Your task to perform on an android device: turn on improve location accuracy Image 0: 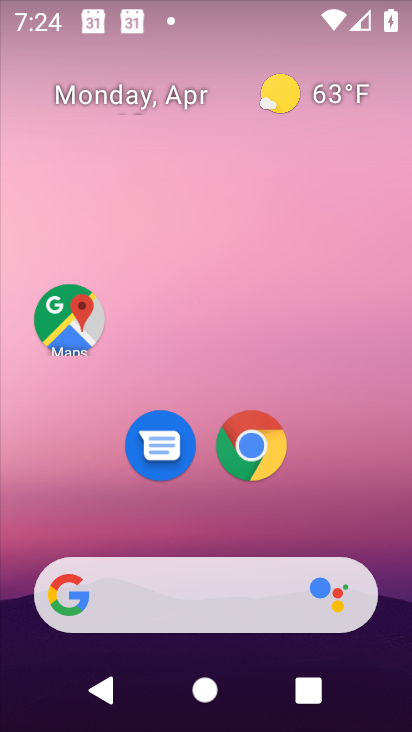
Step 0: click (369, 96)
Your task to perform on an android device: turn on improve location accuracy Image 1: 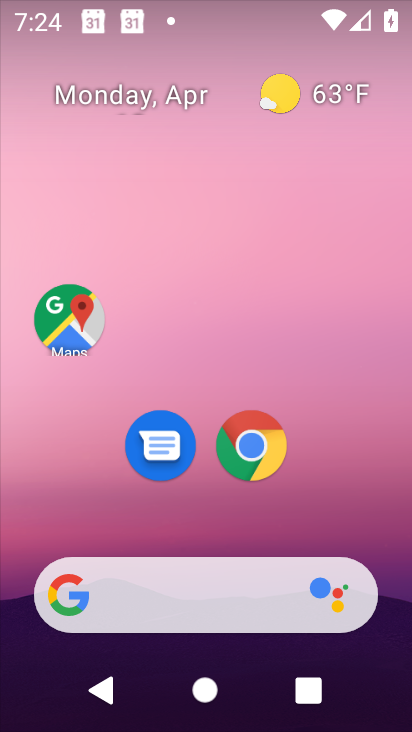
Step 1: drag from (382, 397) to (360, 1)
Your task to perform on an android device: turn on improve location accuracy Image 2: 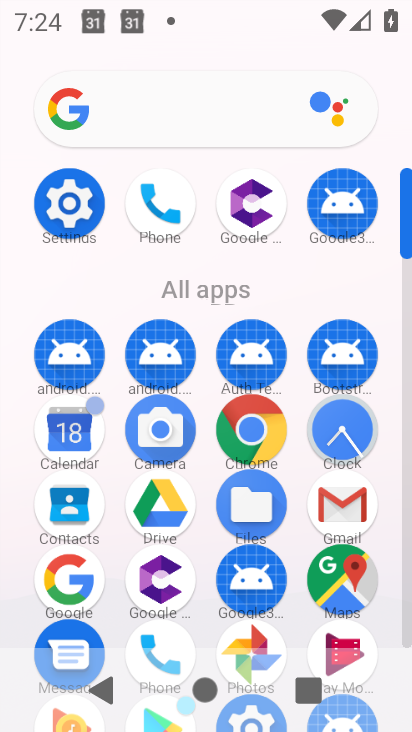
Step 2: click (53, 174)
Your task to perform on an android device: turn on improve location accuracy Image 3: 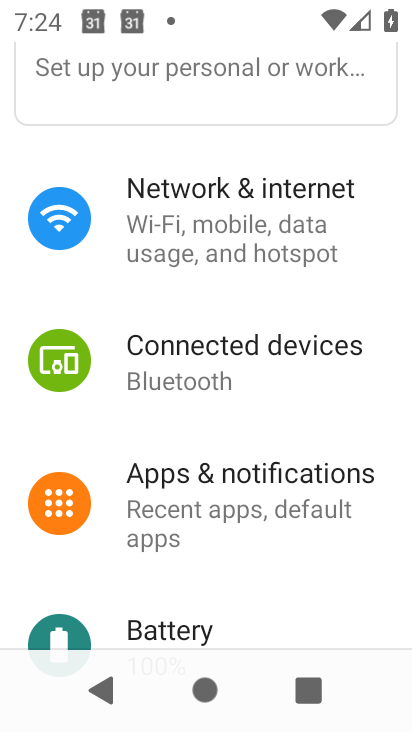
Step 3: drag from (261, 528) to (276, 178)
Your task to perform on an android device: turn on improve location accuracy Image 4: 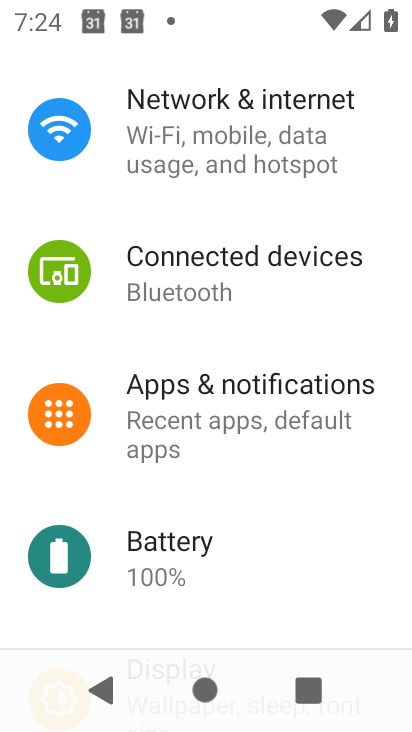
Step 4: drag from (340, 573) to (366, 111)
Your task to perform on an android device: turn on improve location accuracy Image 5: 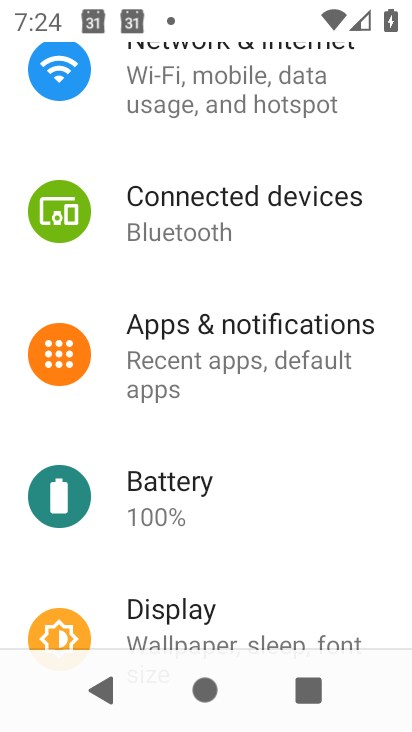
Step 5: drag from (314, 555) to (344, 169)
Your task to perform on an android device: turn on improve location accuracy Image 6: 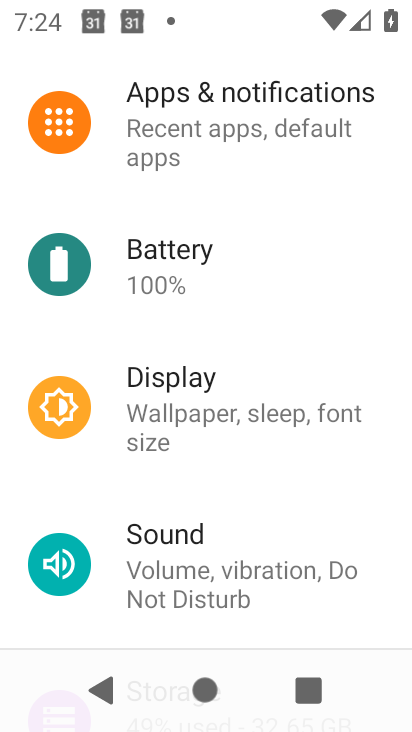
Step 6: drag from (366, 570) to (370, 147)
Your task to perform on an android device: turn on improve location accuracy Image 7: 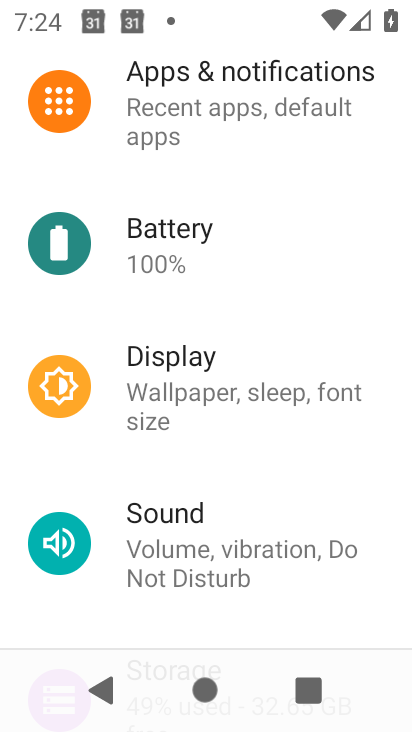
Step 7: drag from (379, 612) to (379, 190)
Your task to perform on an android device: turn on improve location accuracy Image 8: 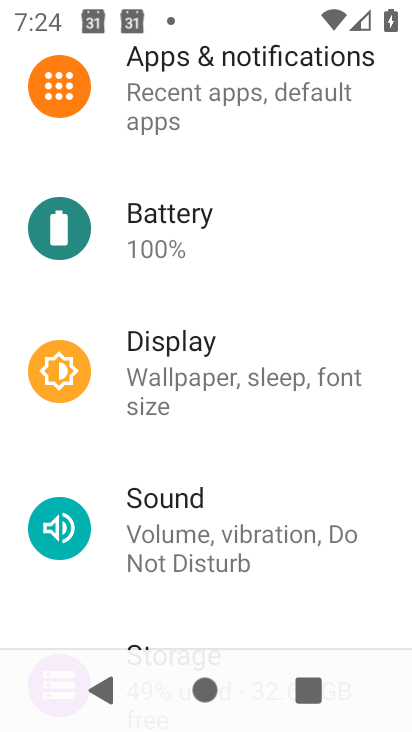
Step 8: drag from (374, 495) to (384, 78)
Your task to perform on an android device: turn on improve location accuracy Image 9: 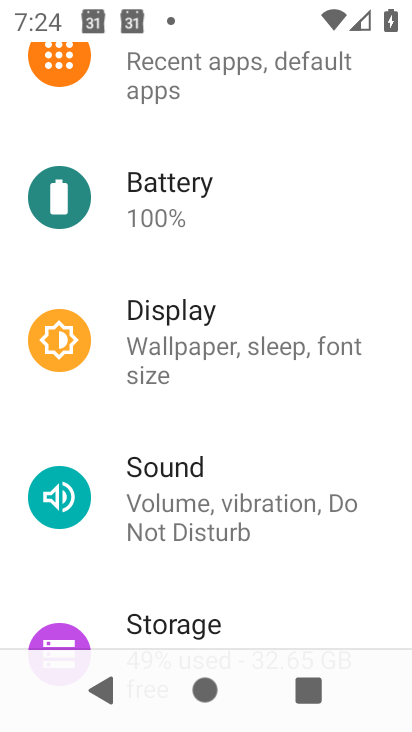
Step 9: drag from (390, 623) to (376, 210)
Your task to perform on an android device: turn on improve location accuracy Image 10: 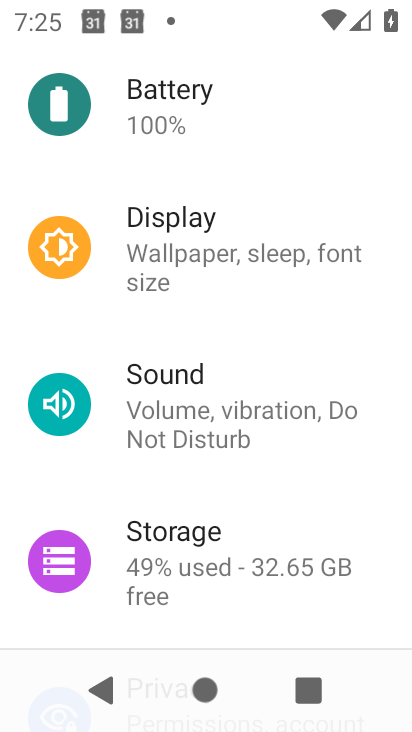
Step 10: drag from (382, 605) to (389, 96)
Your task to perform on an android device: turn on improve location accuracy Image 11: 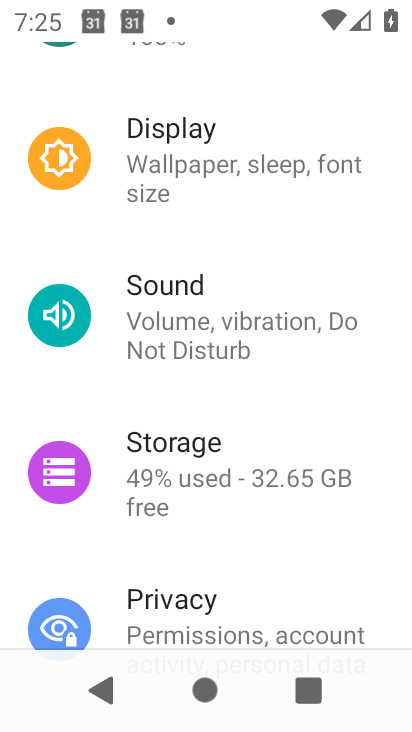
Step 11: drag from (393, 613) to (402, 219)
Your task to perform on an android device: turn on improve location accuracy Image 12: 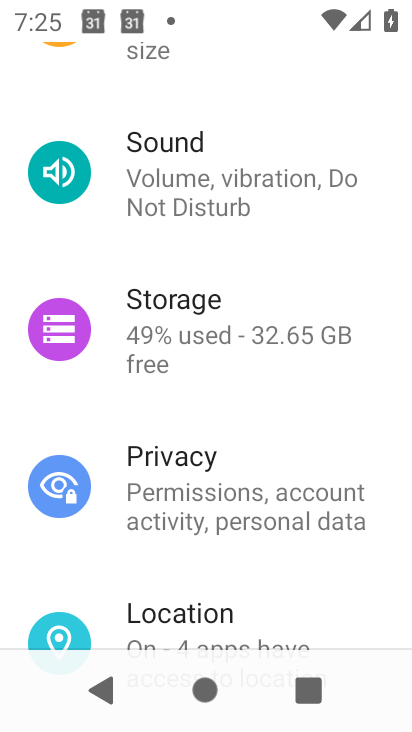
Step 12: drag from (392, 607) to (410, 85)
Your task to perform on an android device: turn on improve location accuracy Image 13: 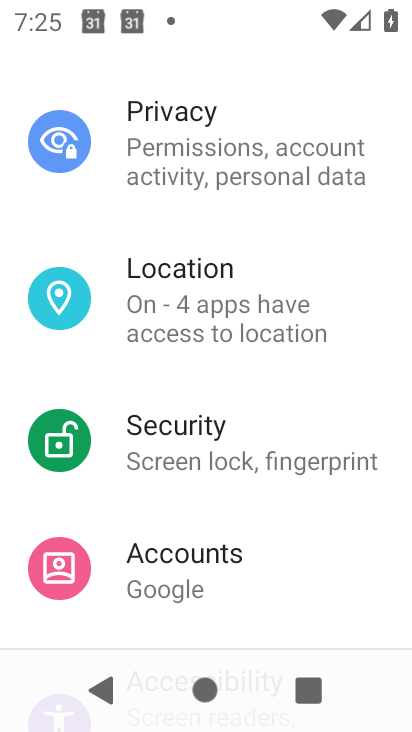
Step 13: click (154, 614)
Your task to perform on an android device: turn on improve location accuracy Image 14: 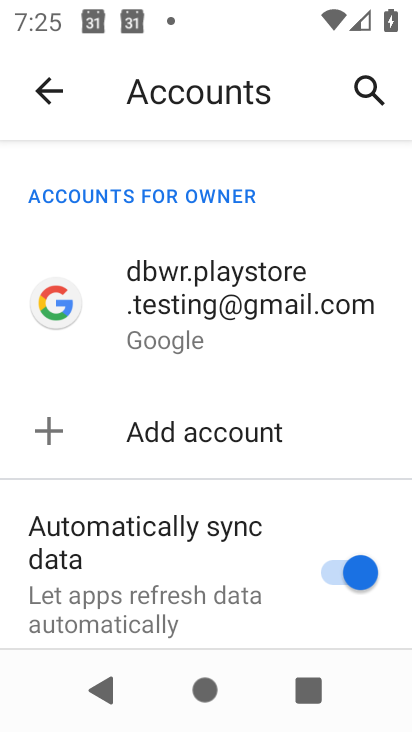
Step 14: click (41, 85)
Your task to perform on an android device: turn on improve location accuracy Image 15: 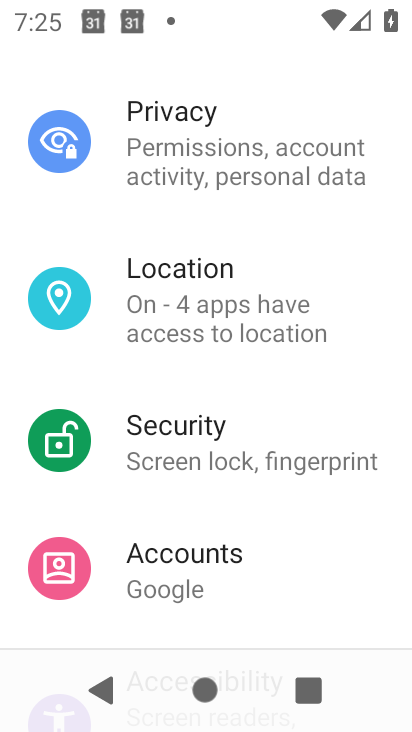
Step 15: click (149, 276)
Your task to perform on an android device: turn on improve location accuracy Image 16: 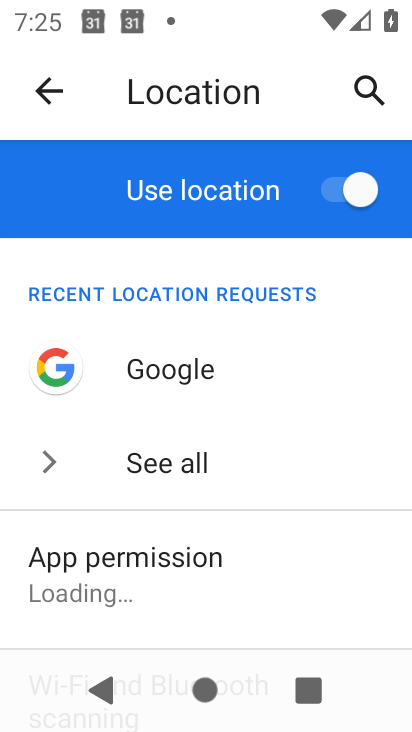
Step 16: drag from (294, 480) to (292, 233)
Your task to perform on an android device: turn on improve location accuracy Image 17: 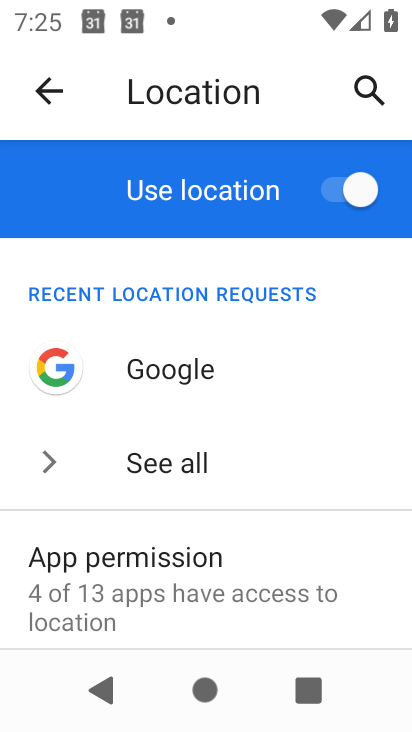
Step 17: drag from (325, 587) to (330, 310)
Your task to perform on an android device: turn on improve location accuracy Image 18: 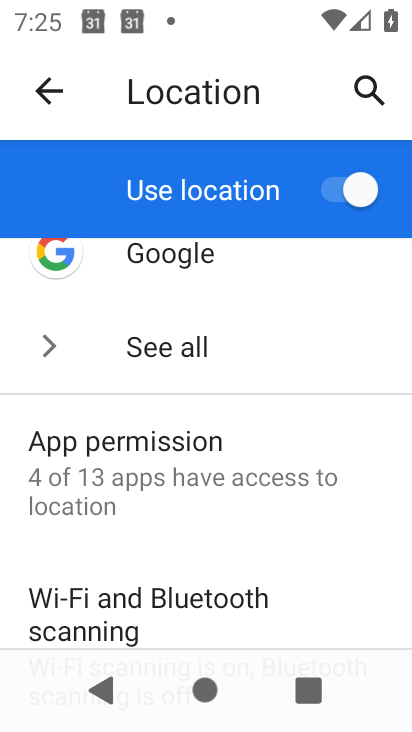
Step 18: drag from (355, 505) to (362, 358)
Your task to perform on an android device: turn on improve location accuracy Image 19: 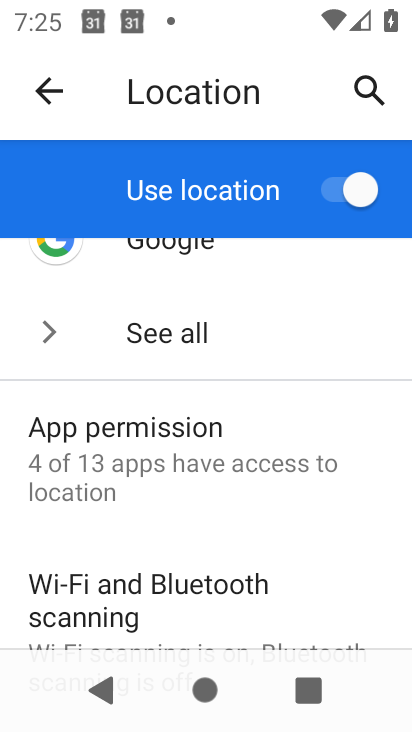
Step 19: drag from (326, 605) to (339, 275)
Your task to perform on an android device: turn on improve location accuracy Image 20: 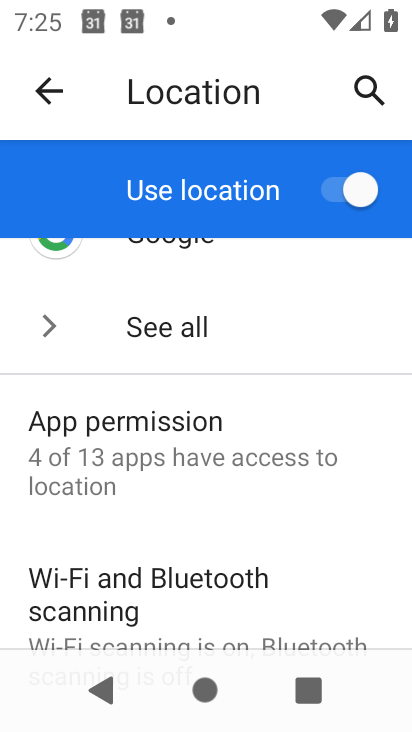
Step 20: drag from (340, 482) to (344, 321)
Your task to perform on an android device: turn on improve location accuracy Image 21: 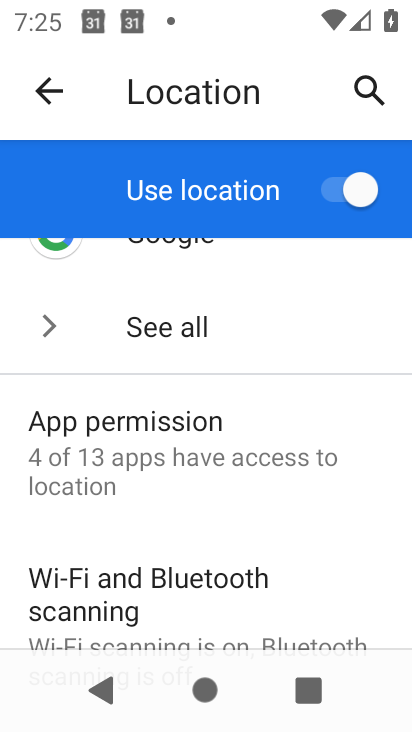
Step 21: drag from (348, 546) to (373, 255)
Your task to perform on an android device: turn on improve location accuracy Image 22: 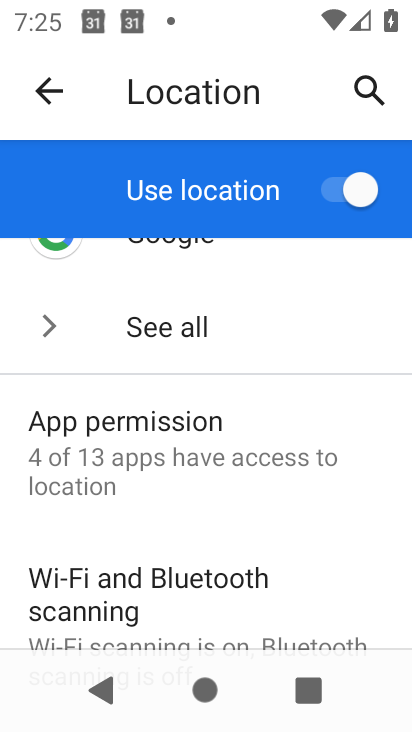
Step 22: drag from (323, 607) to (298, 289)
Your task to perform on an android device: turn on improve location accuracy Image 23: 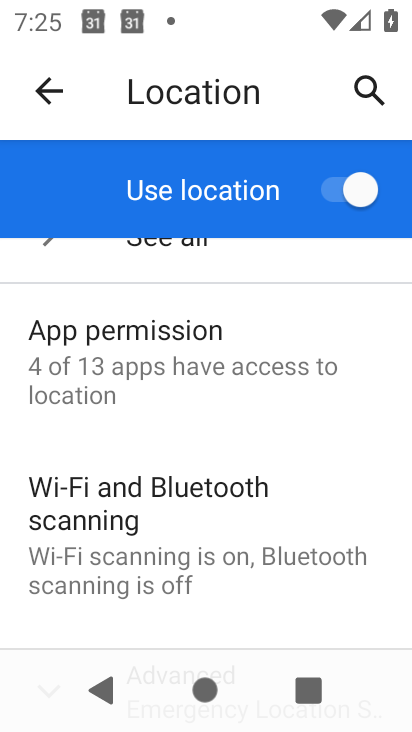
Step 23: drag from (341, 482) to (356, 291)
Your task to perform on an android device: turn on improve location accuracy Image 24: 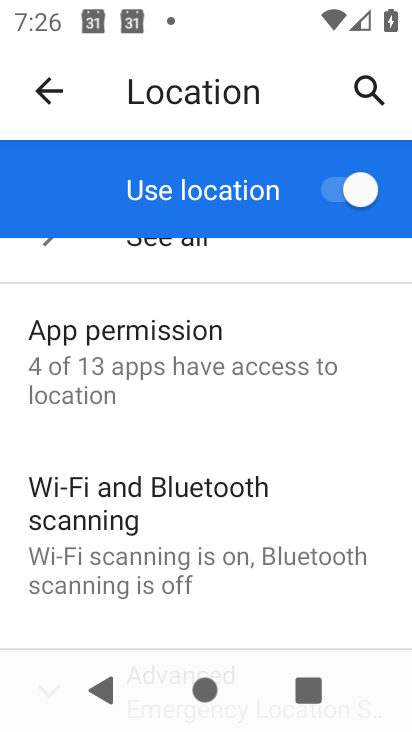
Step 24: drag from (350, 596) to (330, 294)
Your task to perform on an android device: turn on improve location accuracy Image 25: 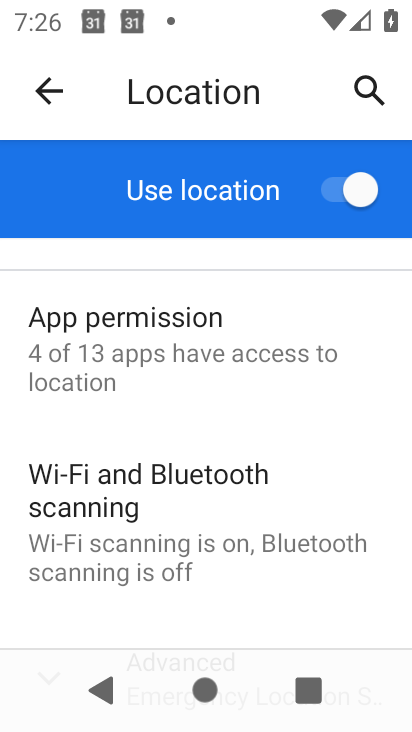
Step 25: drag from (361, 578) to (333, 347)
Your task to perform on an android device: turn on improve location accuracy Image 26: 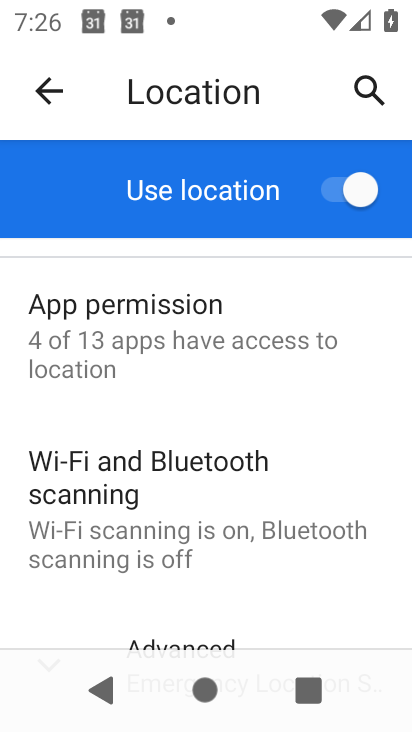
Step 26: drag from (341, 522) to (333, 349)
Your task to perform on an android device: turn on improve location accuracy Image 27: 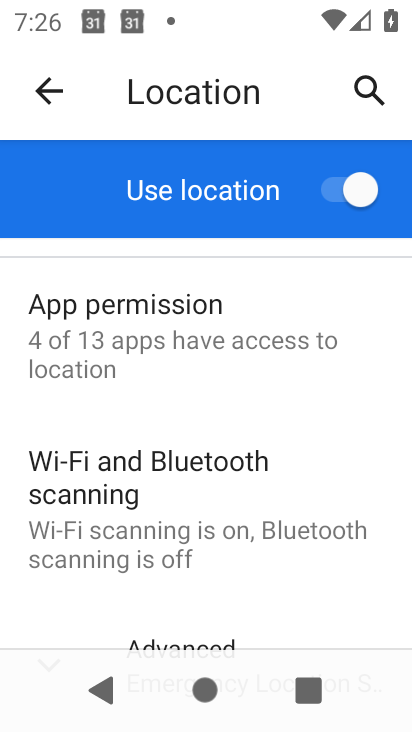
Step 27: click (152, 635)
Your task to perform on an android device: turn on improve location accuracy Image 28: 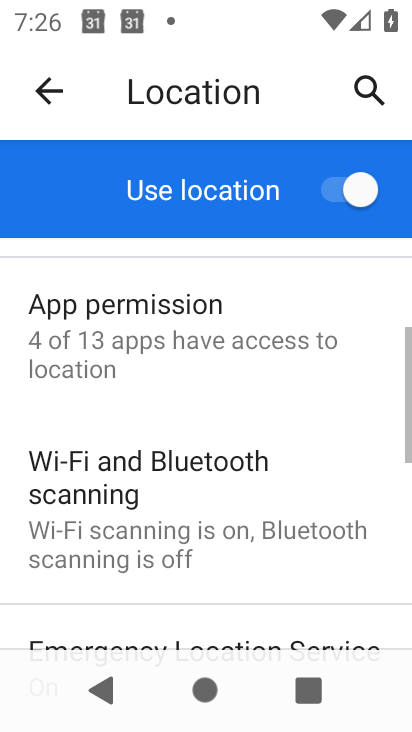
Step 28: drag from (323, 502) to (328, 308)
Your task to perform on an android device: turn on improve location accuracy Image 29: 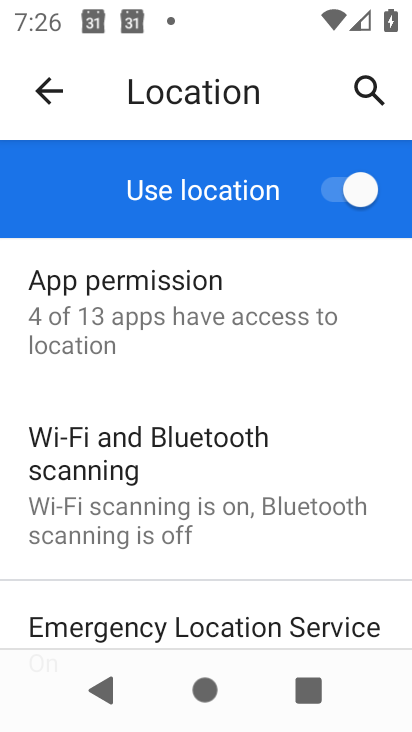
Step 29: drag from (338, 611) to (342, 303)
Your task to perform on an android device: turn on improve location accuracy Image 30: 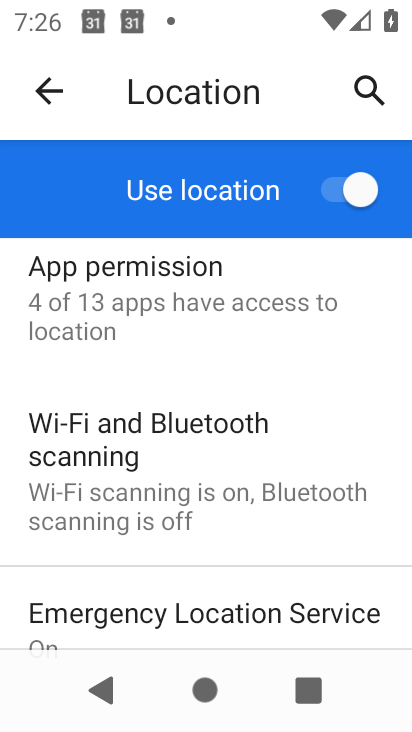
Step 30: drag from (384, 530) to (370, 293)
Your task to perform on an android device: turn on improve location accuracy Image 31: 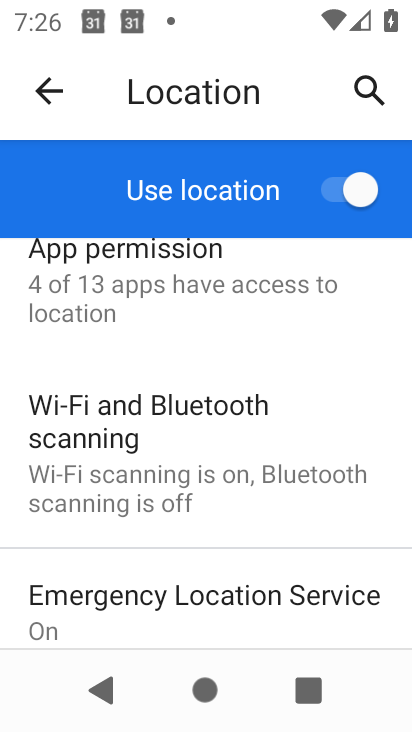
Step 31: drag from (384, 578) to (336, 322)
Your task to perform on an android device: turn on improve location accuracy Image 32: 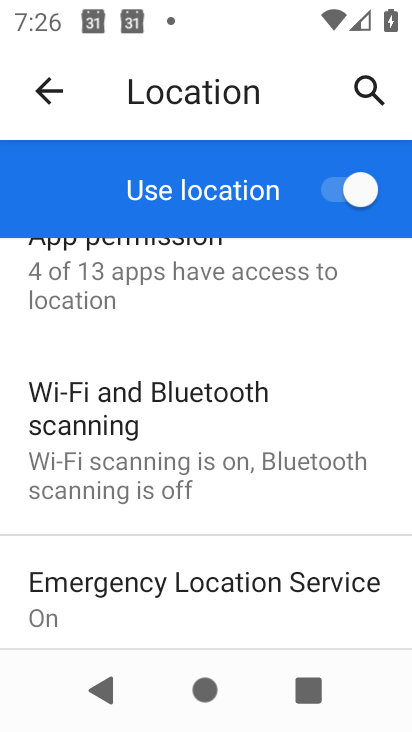
Step 32: drag from (354, 589) to (351, 347)
Your task to perform on an android device: turn on improve location accuracy Image 33: 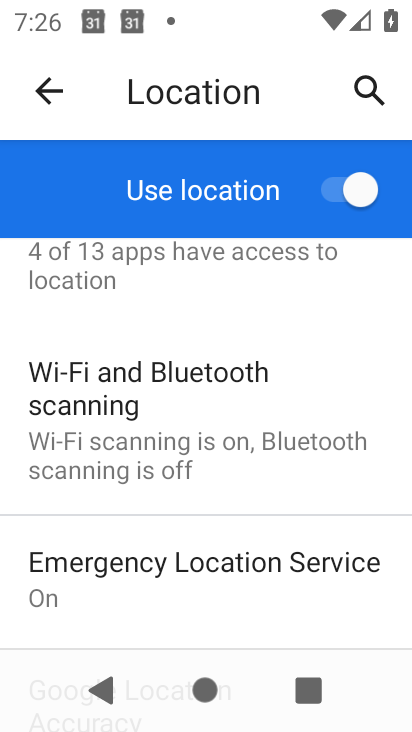
Step 33: drag from (356, 471) to (348, 296)
Your task to perform on an android device: turn on improve location accuracy Image 34: 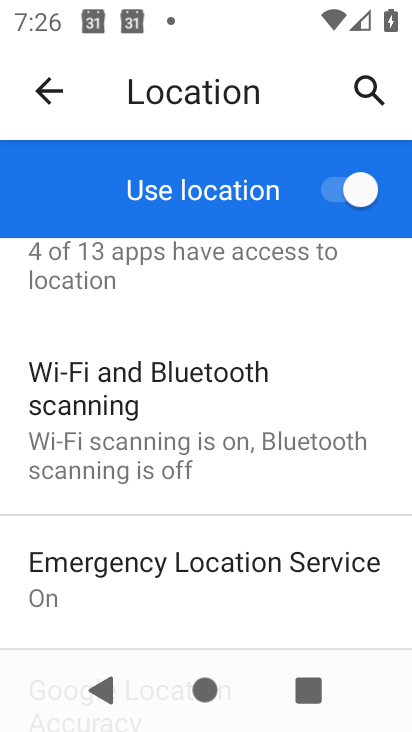
Step 34: drag from (343, 602) to (337, 340)
Your task to perform on an android device: turn on improve location accuracy Image 35: 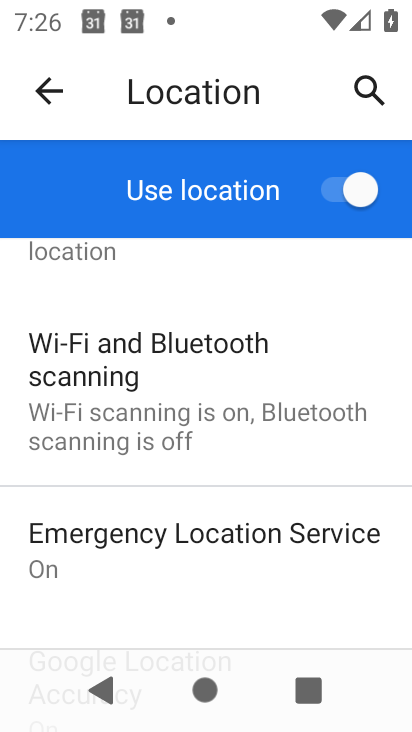
Step 35: drag from (325, 601) to (335, 258)
Your task to perform on an android device: turn on improve location accuracy Image 36: 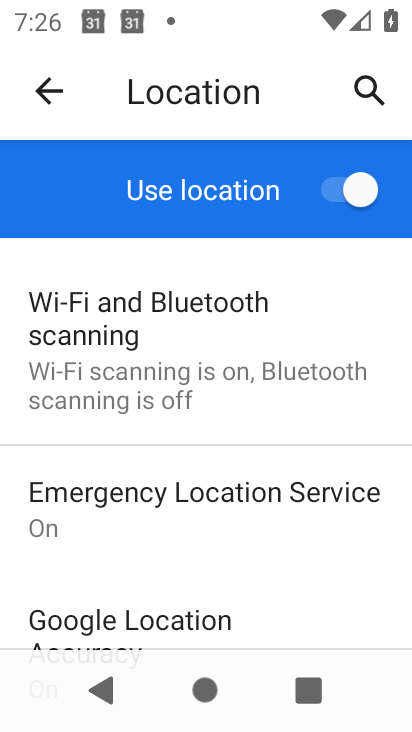
Step 36: drag from (281, 557) to (304, 369)
Your task to perform on an android device: turn on improve location accuracy Image 37: 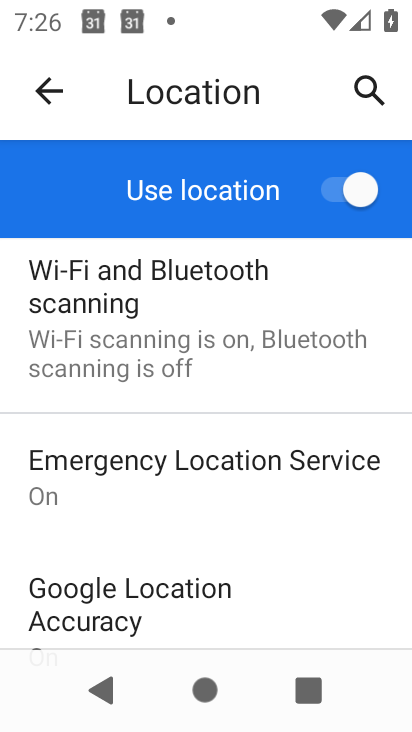
Step 37: click (78, 597)
Your task to perform on an android device: turn on improve location accuracy Image 38: 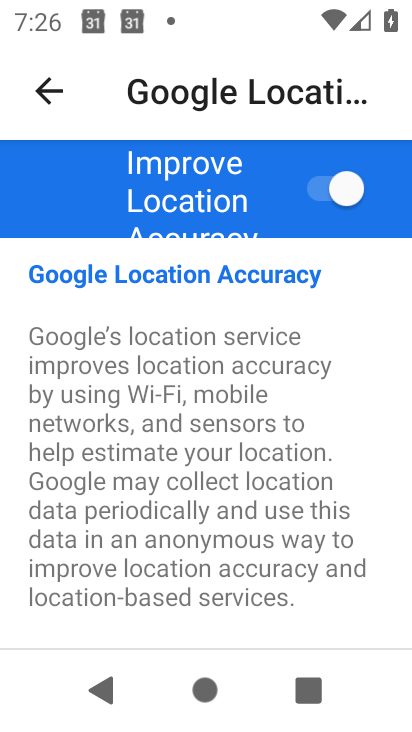
Step 38: task complete